Your task to perform on an android device: turn on priority inbox in the gmail app Image 0: 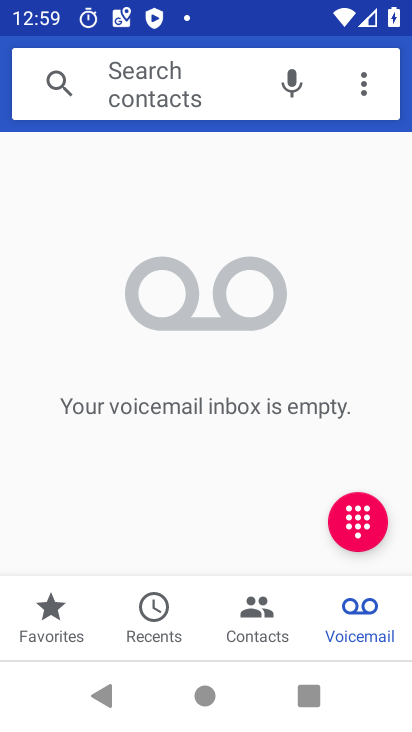
Step 0: press home button
Your task to perform on an android device: turn on priority inbox in the gmail app Image 1: 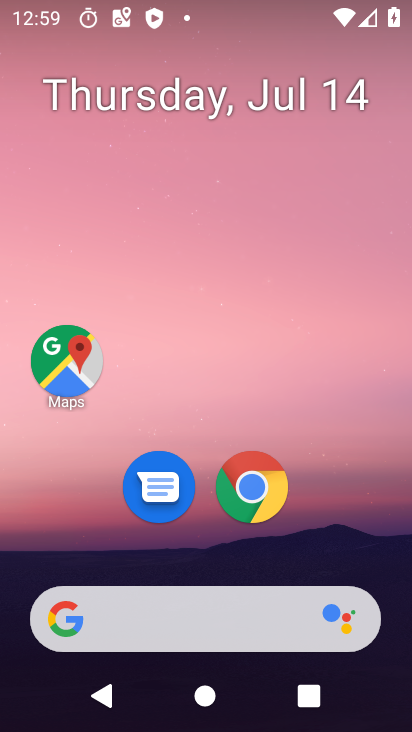
Step 1: drag from (208, 554) to (234, 226)
Your task to perform on an android device: turn on priority inbox in the gmail app Image 2: 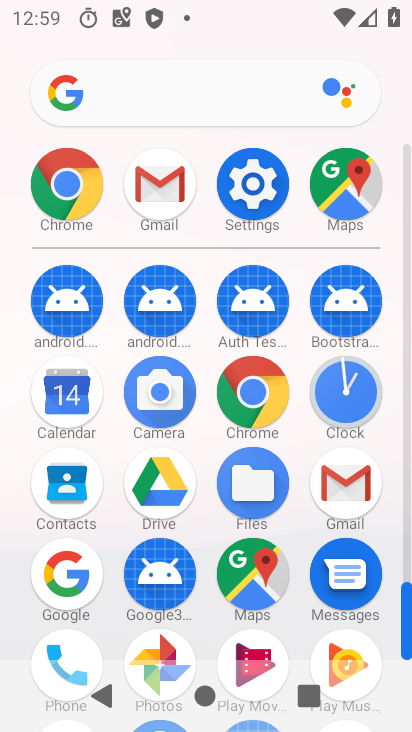
Step 2: click (354, 494)
Your task to perform on an android device: turn on priority inbox in the gmail app Image 3: 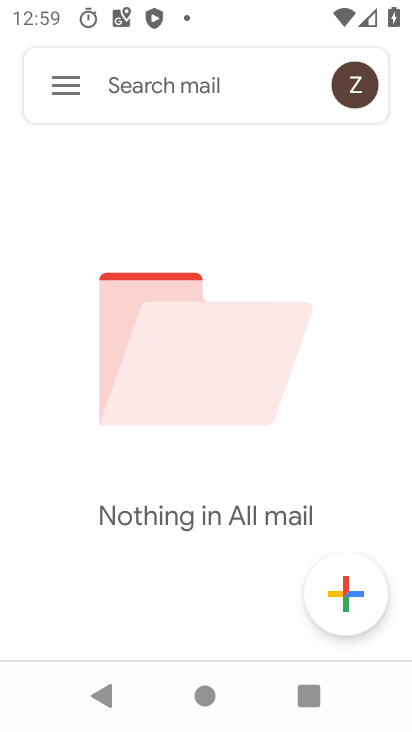
Step 3: click (70, 89)
Your task to perform on an android device: turn on priority inbox in the gmail app Image 4: 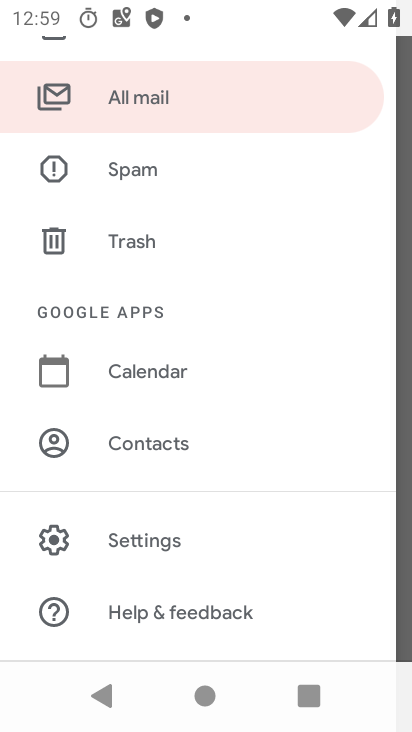
Step 4: click (180, 539)
Your task to perform on an android device: turn on priority inbox in the gmail app Image 5: 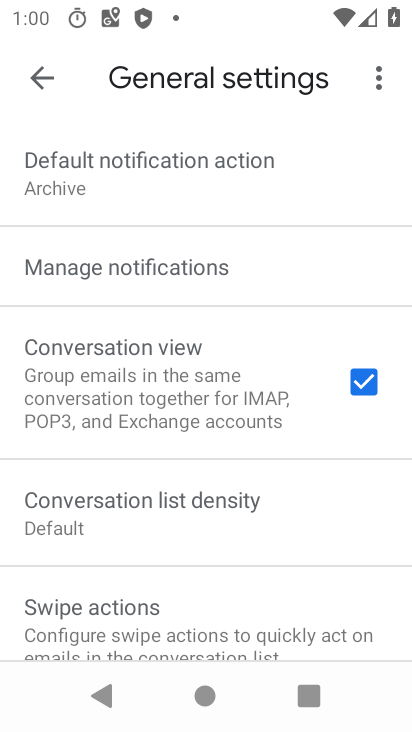
Step 5: click (34, 81)
Your task to perform on an android device: turn on priority inbox in the gmail app Image 6: 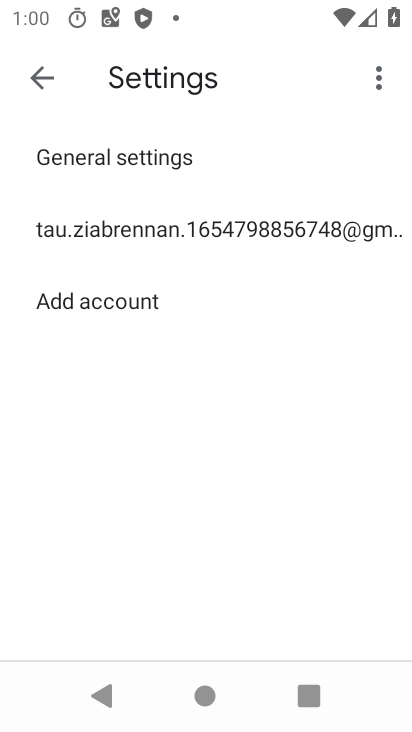
Step 6: click (150, 237)
Your task to perform on an android device: turn on priority inbox in the gmail app Image 7: 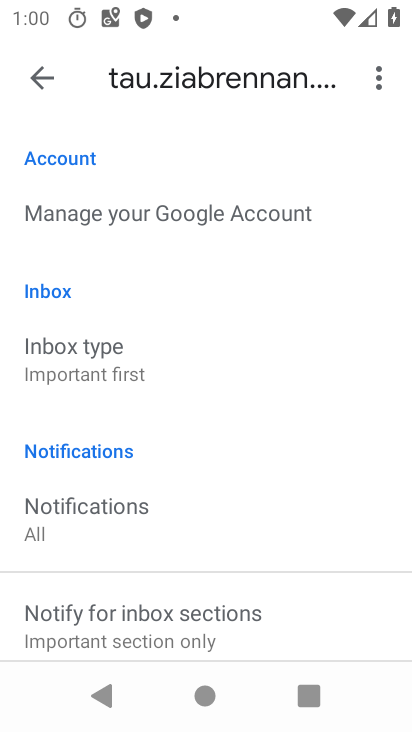
Step 7: click (93, 368)
Your task to perform on an android device: turn on priority inbox in the gmail app Image 8: 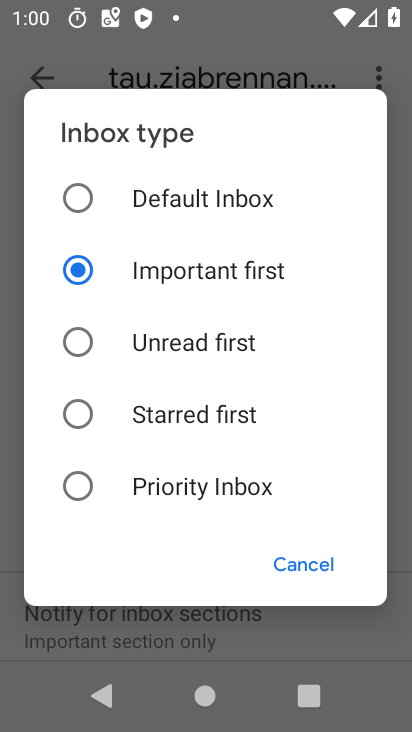
Step 8: click (70, 492)
Your task to perform on an android device: turn on priority inbox in the gmail app Image 9: 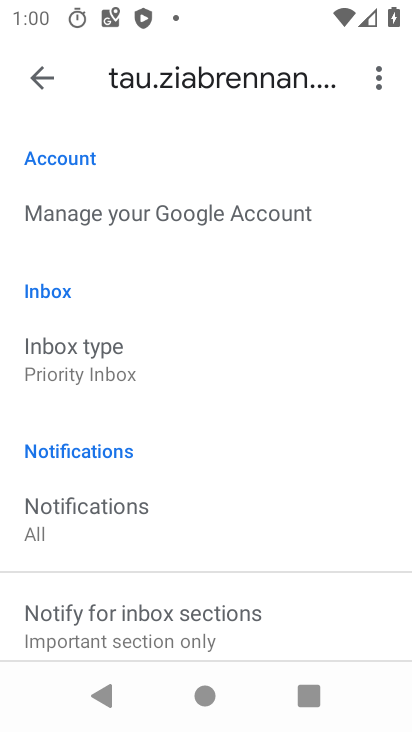
Step 9: task complete